Your task to perform on an android device: Search for "apple airpods pro" on walmart, select the first entry, and add it to the cart. Image 0: 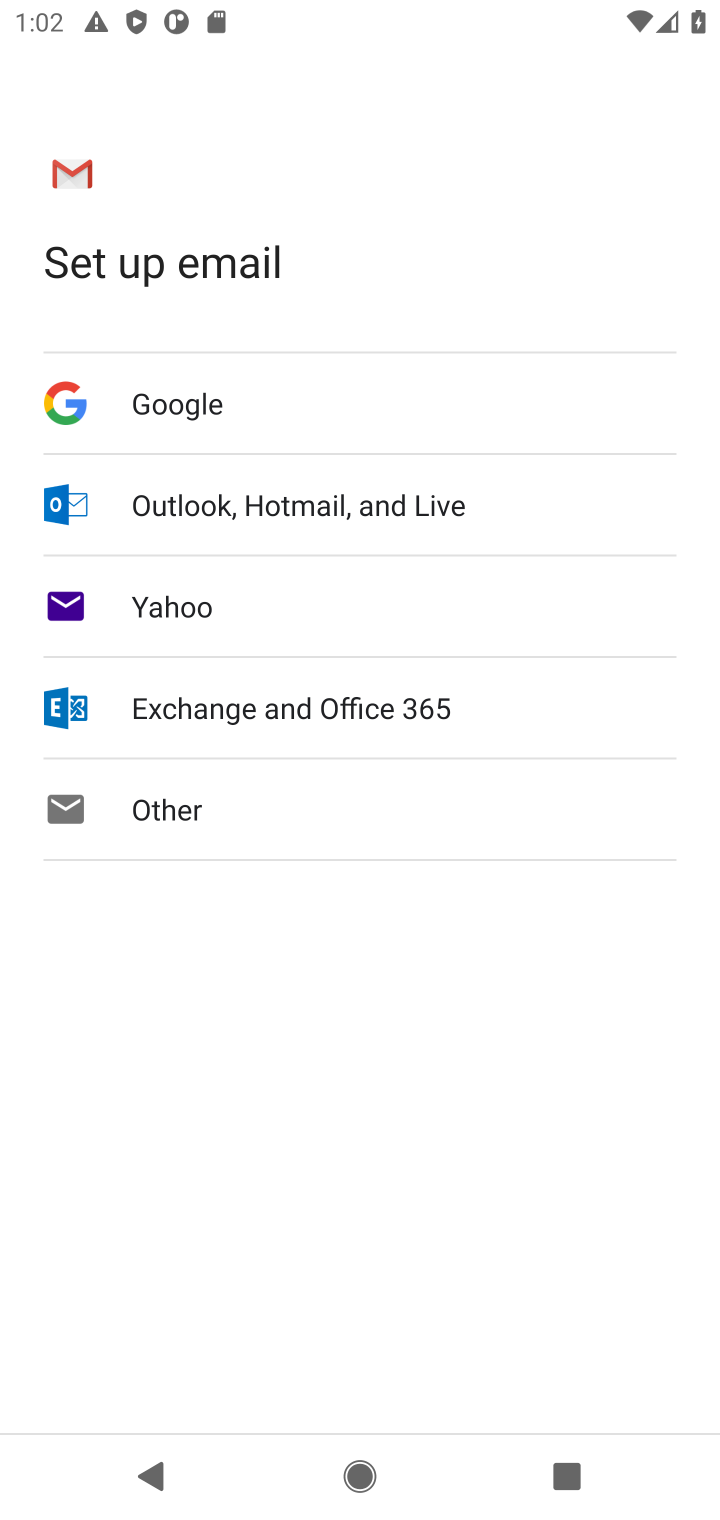
Step 0: press home button
Your task to perform on an android device: Search for "apple airpods pro" on walmart, select the first entry, and add it to the cart. Image 1: 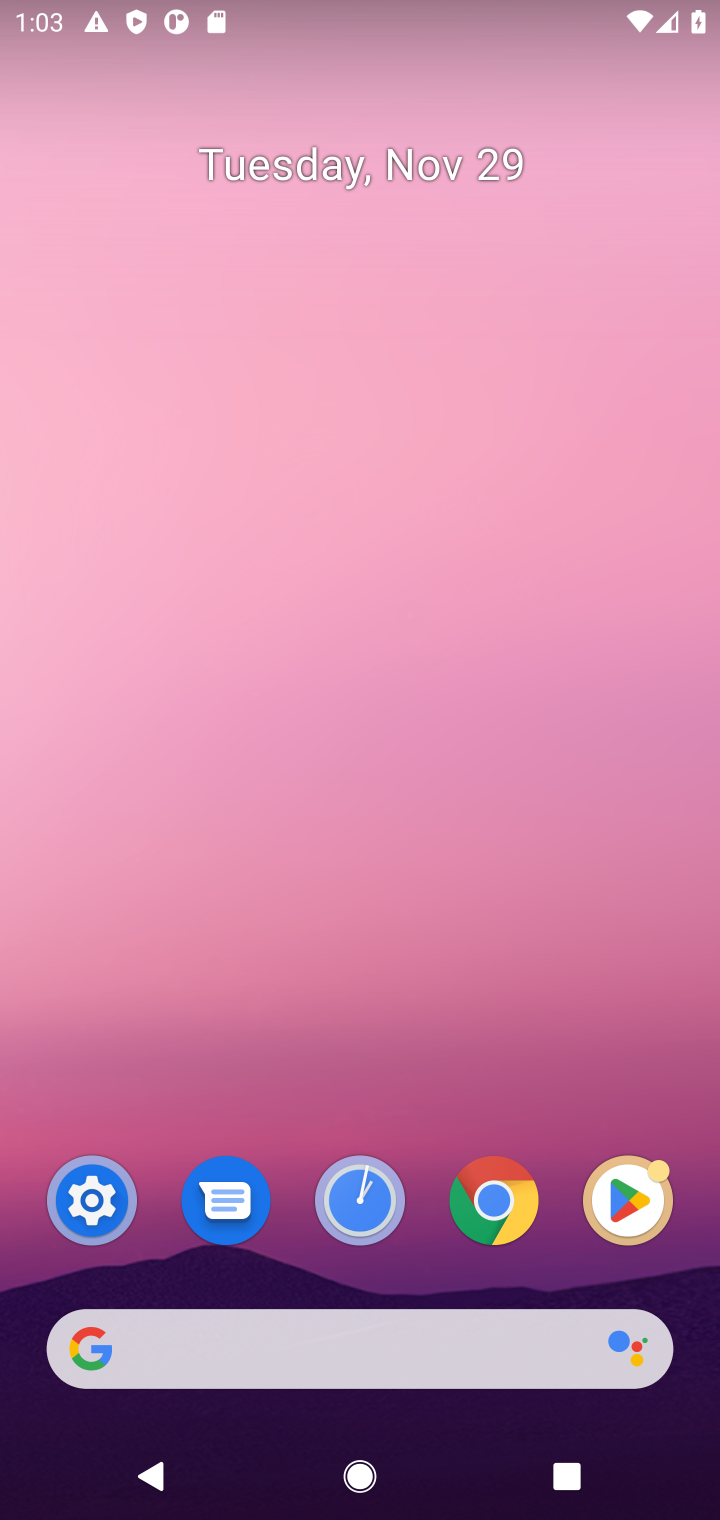
Step 1: click (329, 1375)
Your task to perform on an android device: Search for "apple airpods pro" on walmart, select the first entry, and add it to the cart. Image 2: 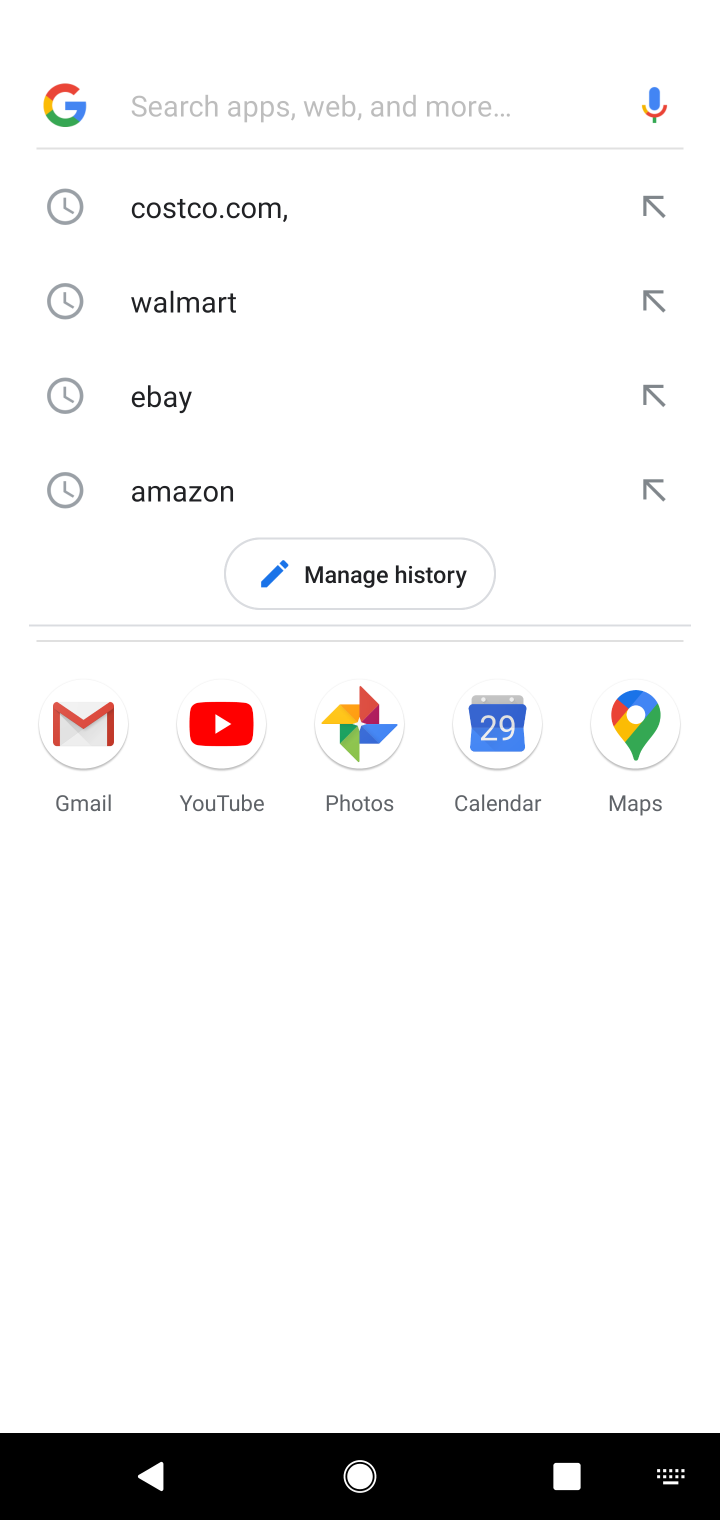
Step 2: type "walmart"
Your task to perform on an android device: Search for "apple airpods pro" on walmart, select the first entry, and add it to the cart. Image 3: 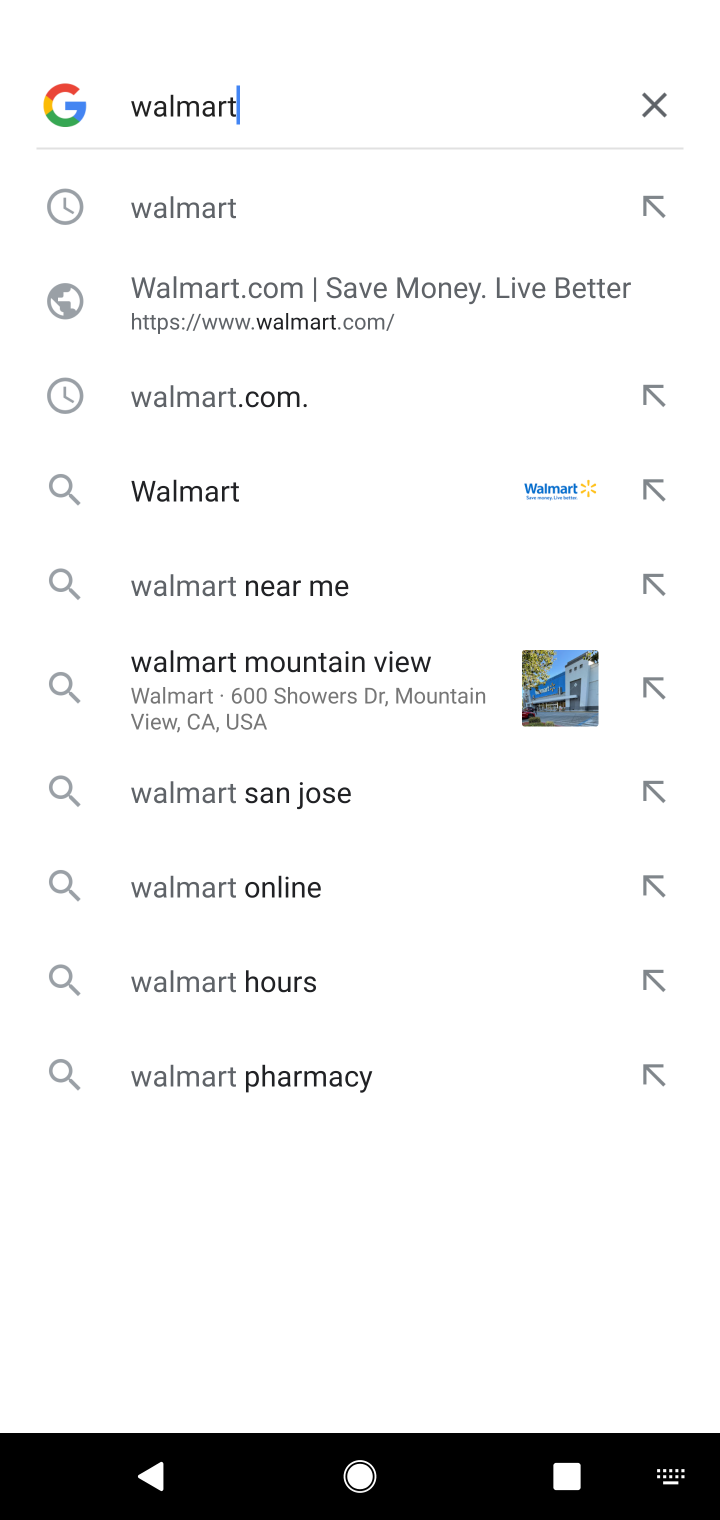
Step 3: click (300, 299)
Your task to perform on an android device: Search for "apple airpods pro" on walmart, select the first entry, and add it to the cart. Image 4: 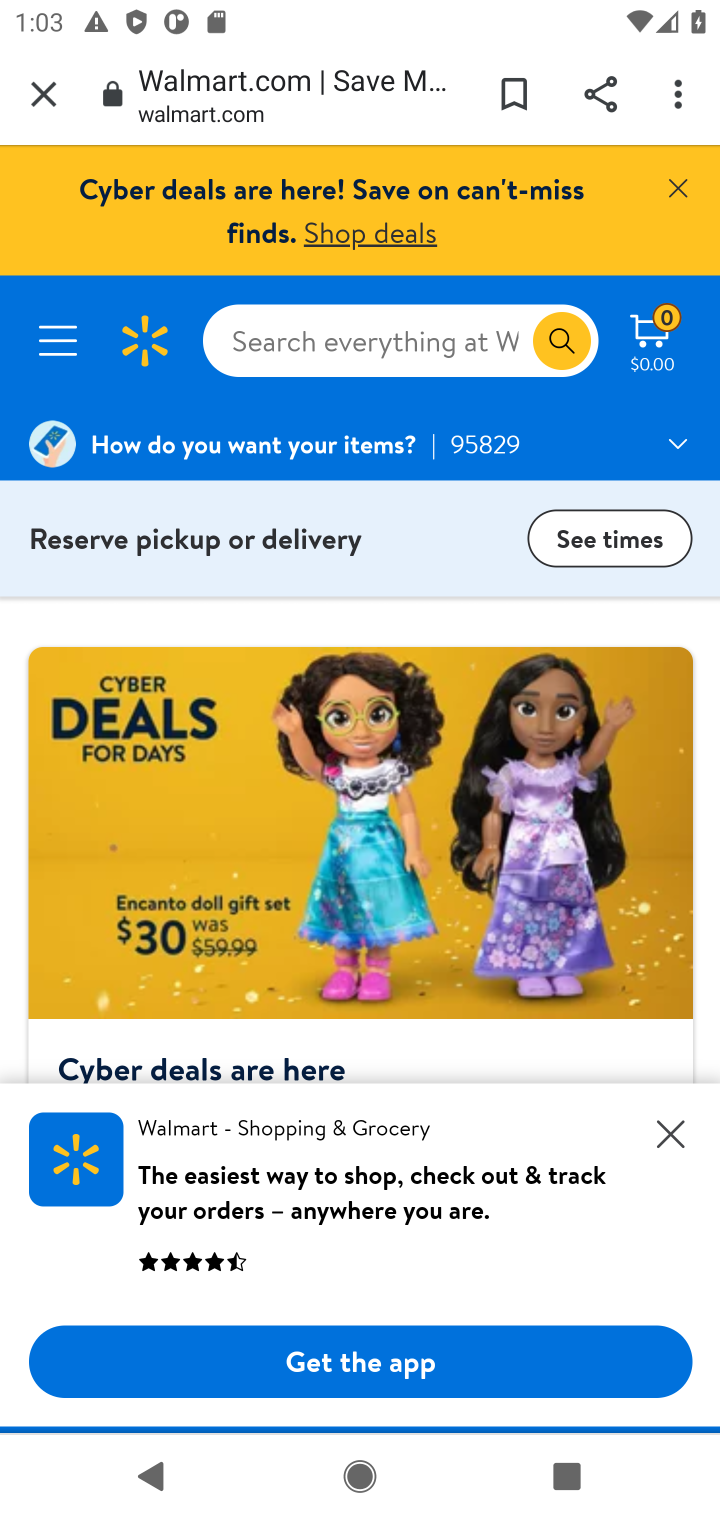
Step 4: click (366, 361)
Your task to perform on an android device: Search for "apple airpods pro" on walmart, select the first entry, and add it to the cart. Image 5: 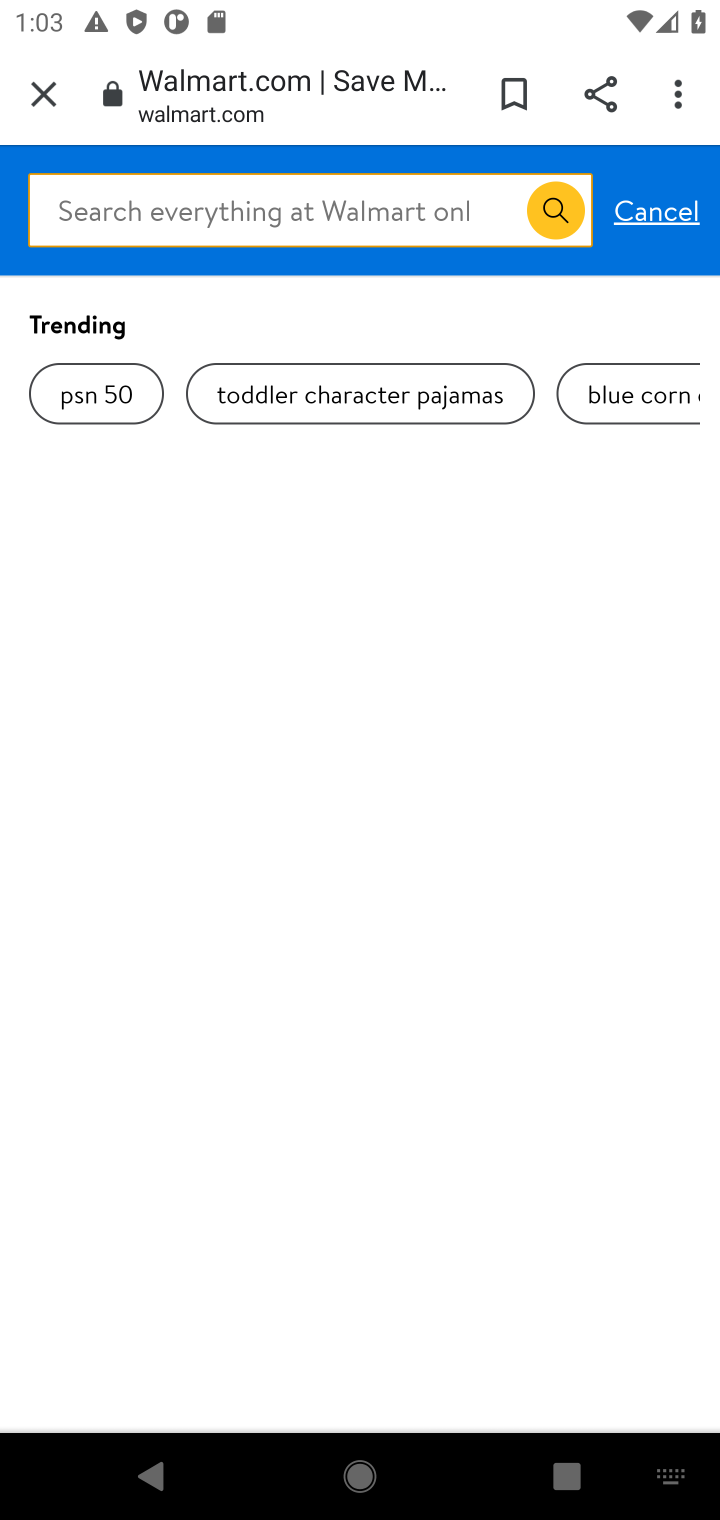
Step 5: type "apple airpod pro"
Your task to perform on an android device: Search for "apple airpods pro" on walmart, select the first entry, and add it to the cart. Image 6: 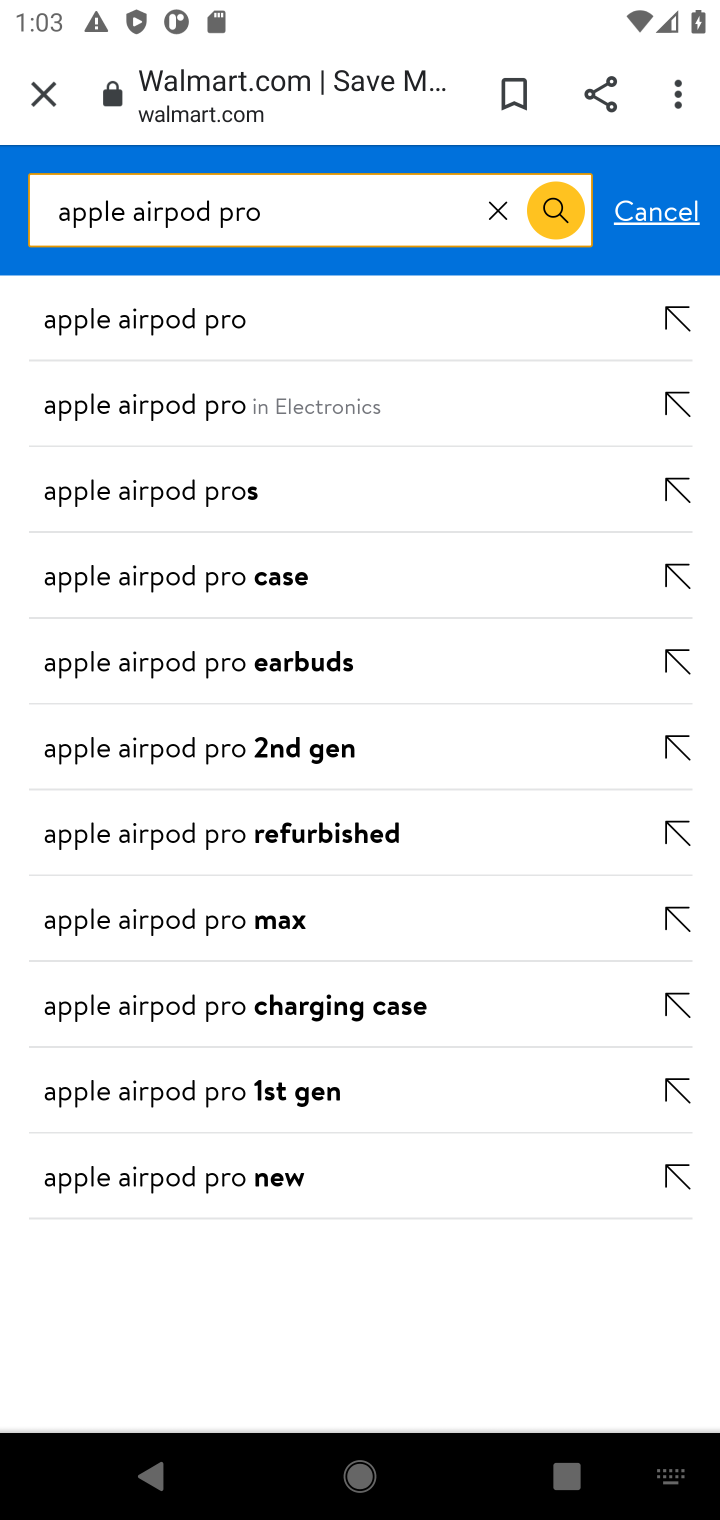
Step 6: click (282, 340)
Your task to perform on an android device: Search for "apple airpods pro" on walmart, select the first entry, and add it to the cart. Image 7: 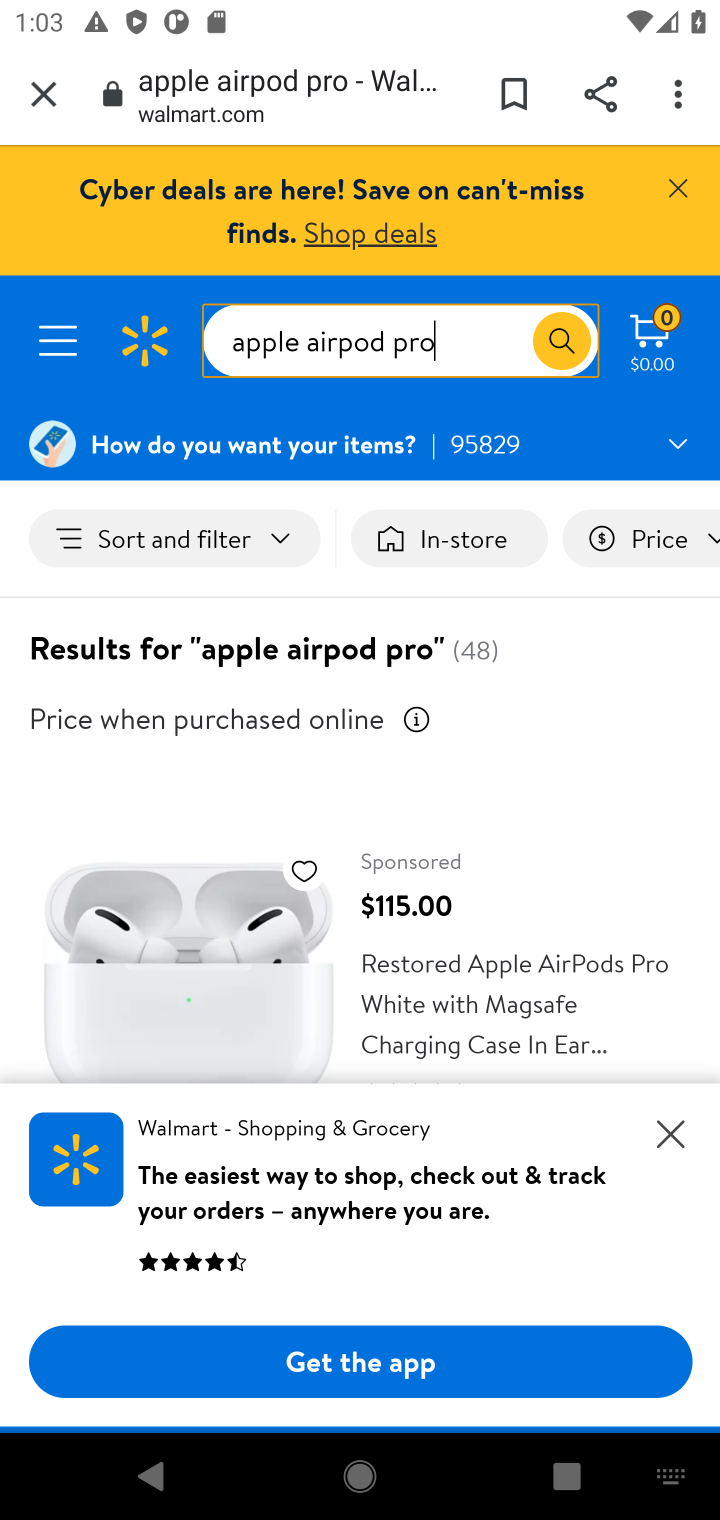
Step 7: click (708, 1159)
Your task to perform on an android device: Search for "apple airpods pro" on walmart, select the first entry, and add it to the cart. Image 8: 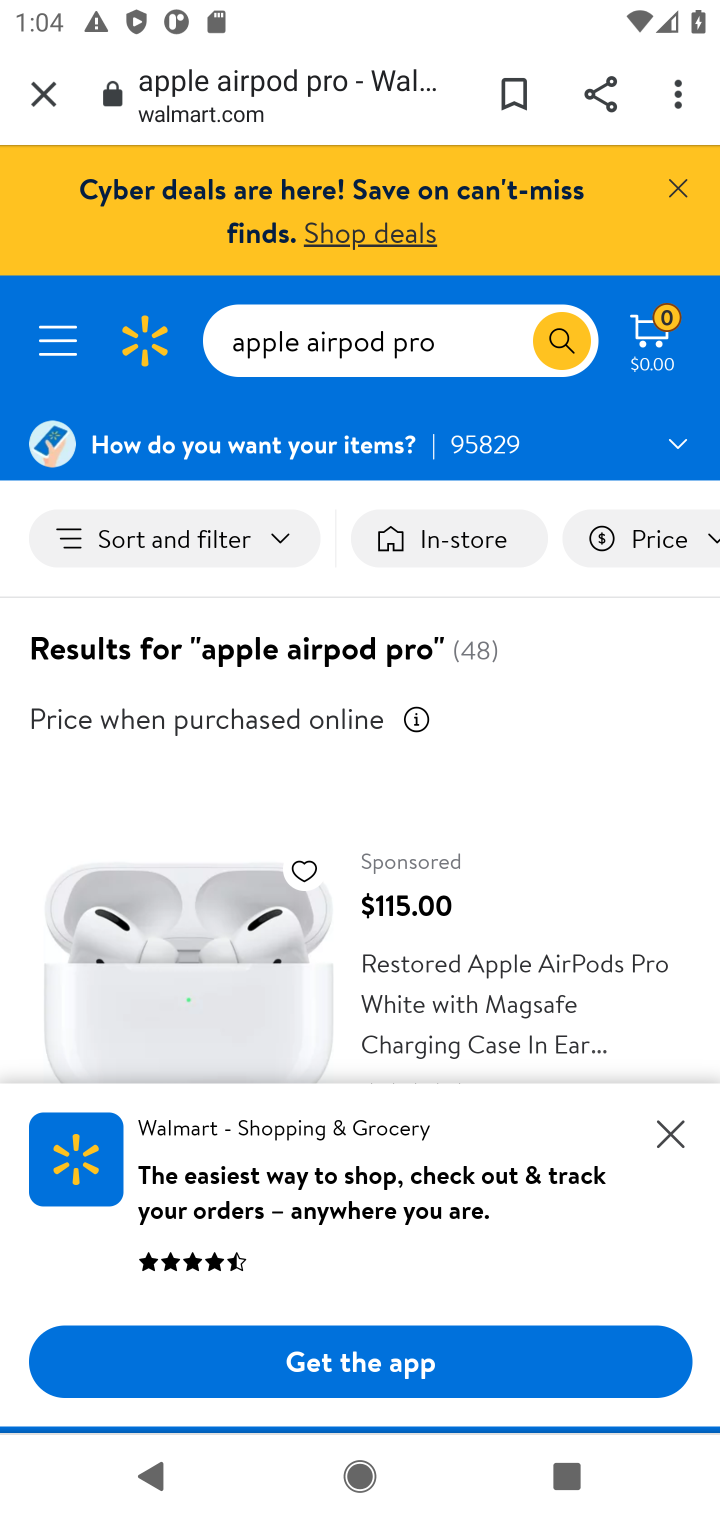
Step 8: click (642, 1136)
Your task to perform on an android device: Search for "apple airpods pro" on walmart, select the first entry, and add it to the cart. Image 9: 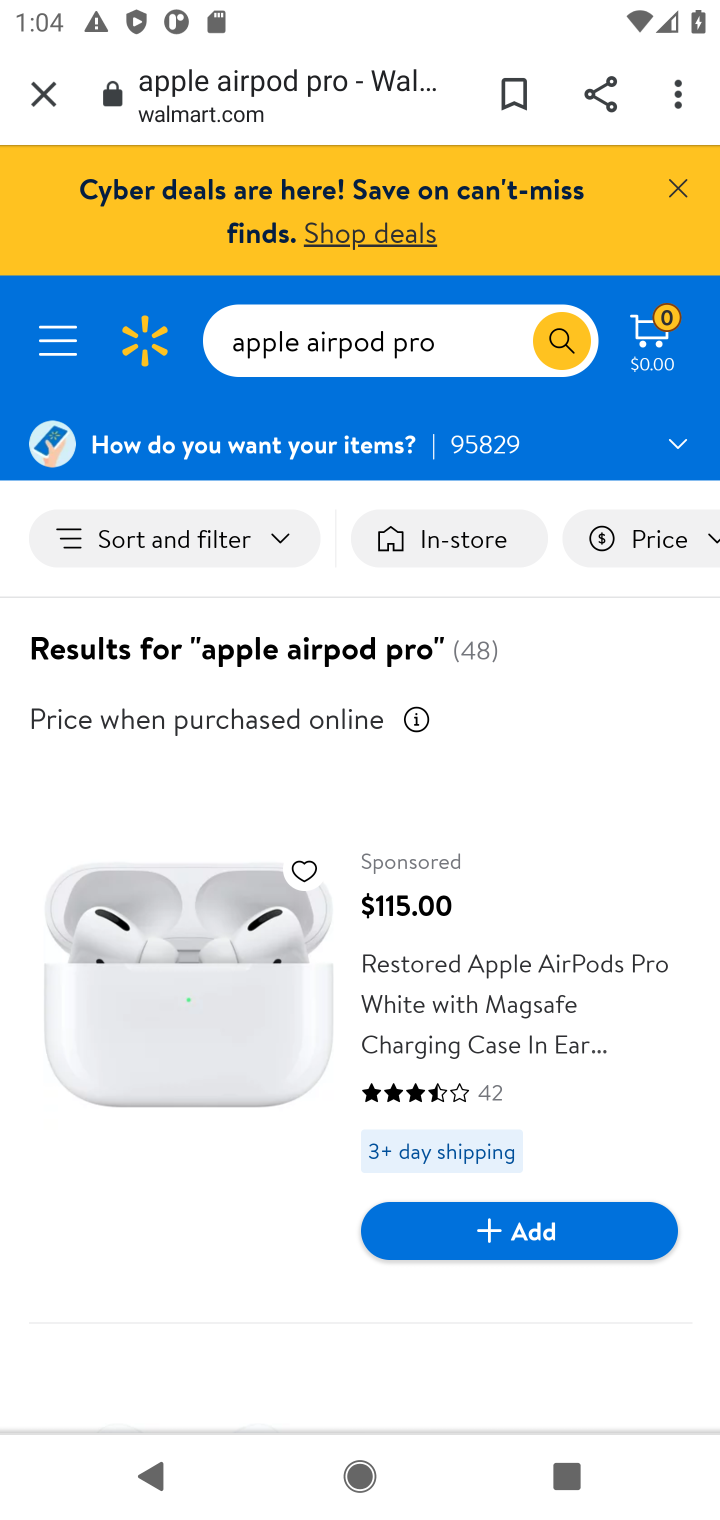
Step 9: click (520, 1245)
Your task to perform on an android device: Search for "apple airpods pro" on walmart, select the first entry, and add it to the cart. Image 10: 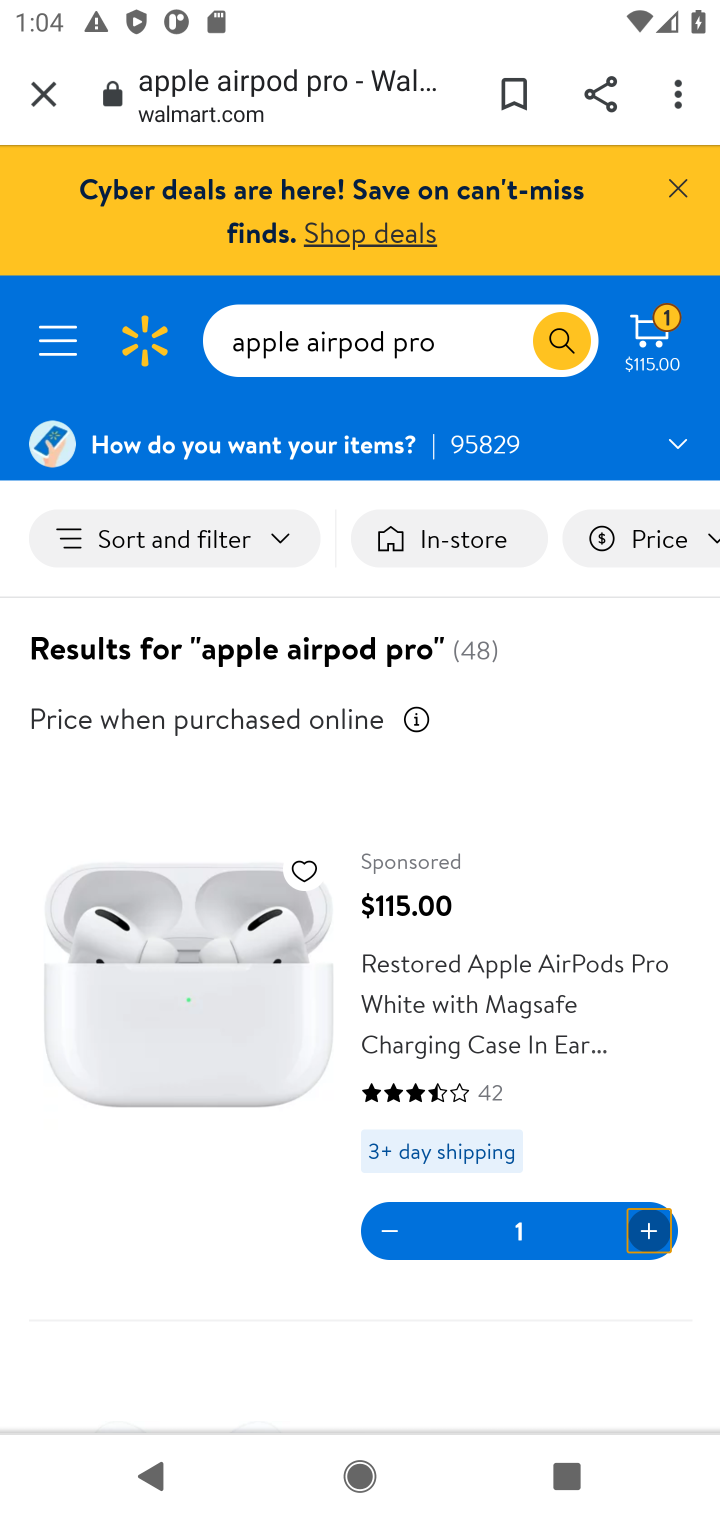
Step 10: task complete